Your task to perform on an android device: Clear the cart on amazon. Search for logitech g pro on amazon, select the first entry, and add it to the cart. Image 0: 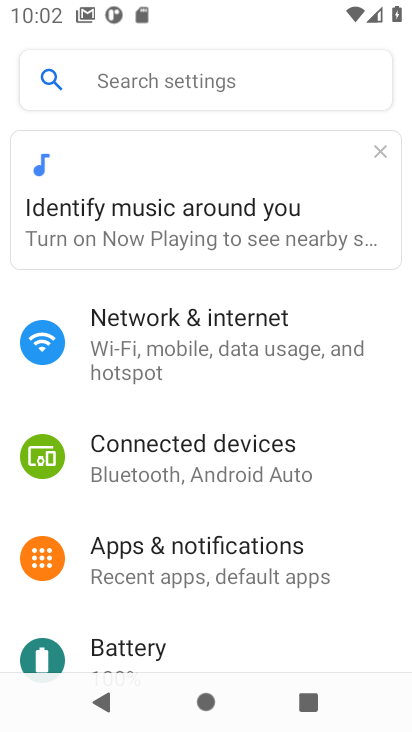
Step 0: press home button
Your task to perform on an android device: Clear the cart on amazon. Search for logitech g pro on amazon, select the first entry, and add it to the cart. Image 1: 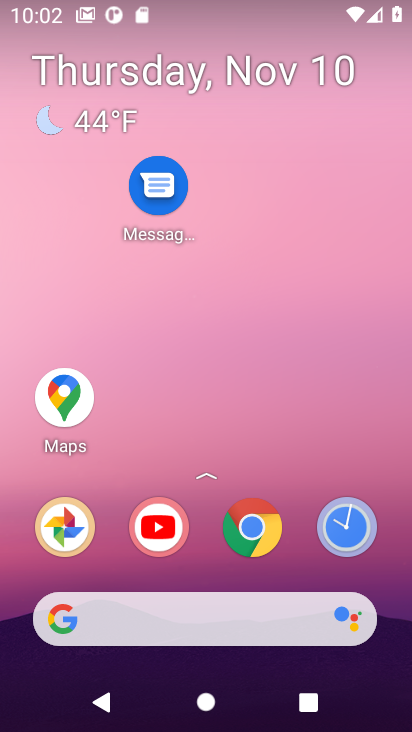
Step 1: drag from (203, 542) to (185, 0)
Your task to perform on an android device: Clear the cart on amazon. Search for logitech g pro on amazon, select the first entry, and add it to the cart. Image 2: 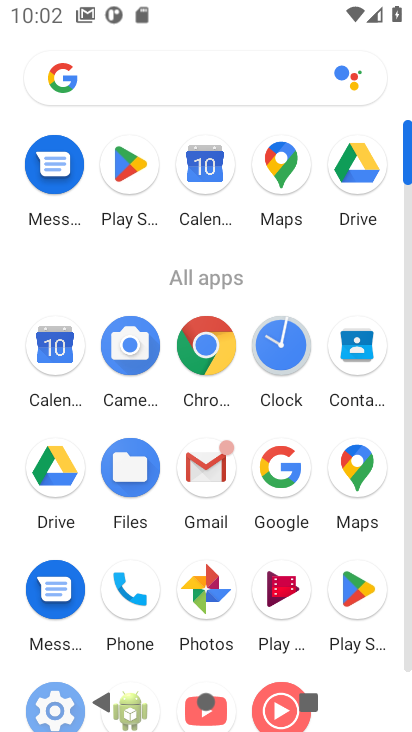
Step 2: click (204, 341)
Your task to perform on an android device: Clear the cart on amazon. Search for logitech g pro on amazon, select the first entry, and add it to the cart. Image 3: 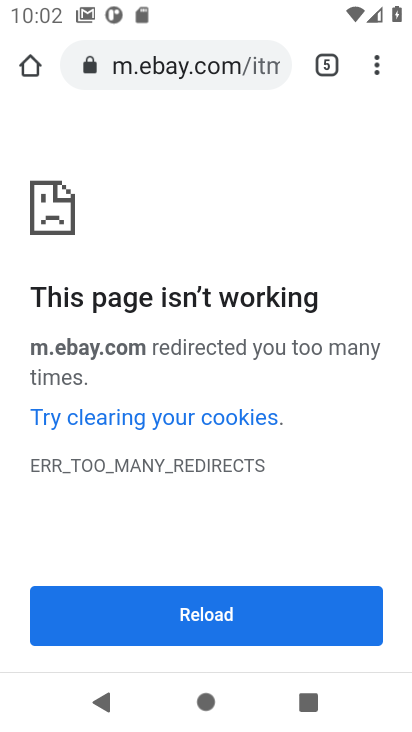
Step 3: click (155, 76)
Your task to perform on an android device: Clear the cart on amazon. Search for logitech g pro on amazon, select the first entry, and add it to the cart. Image 4: 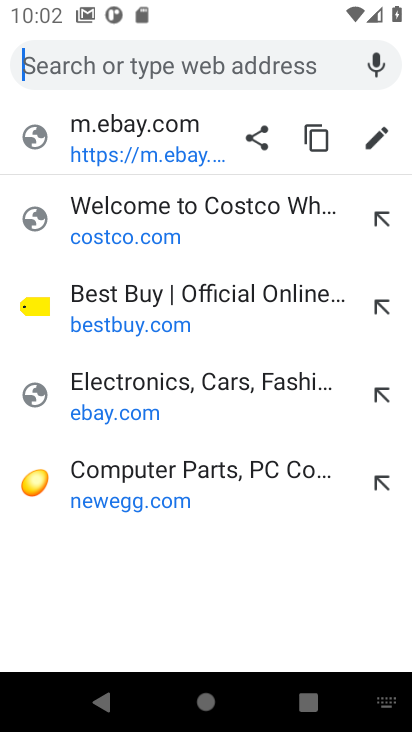
Step 4: type "amazon"
Your task to perform on an android device: Clear the cart on amazon. Search for logitech g pro on amazon, select the first entry, and add it to the cart. Image 5: 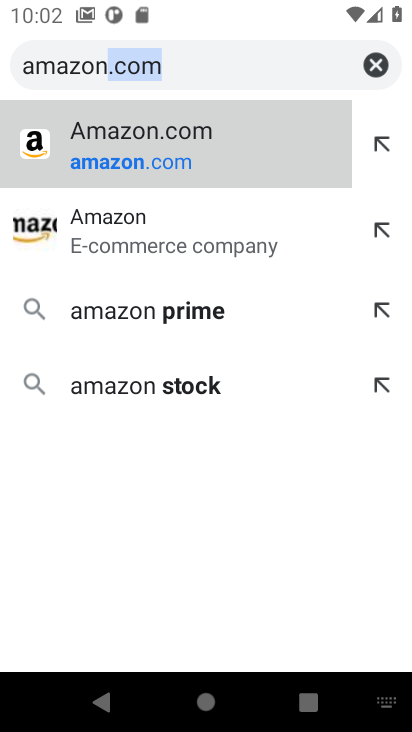
Step 5: press enter
Your task to perform on an android device: Clear the cart on amazon. Search for logitech g pro on amazon, select the first entry, and add it to the cart. Image 6: 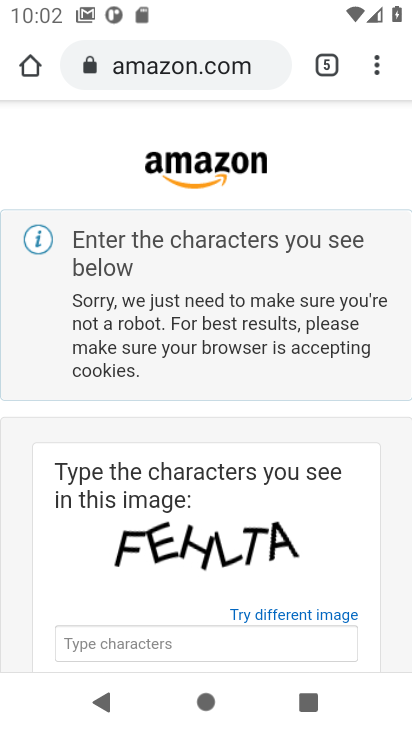
Step 6: drag from (177, 435) to (169, 148)
Your task to perform on an android device: Clear the cart on amazon. Search for logitech g pro on amazon, select the first entry, and add it to the cart. Image 7: 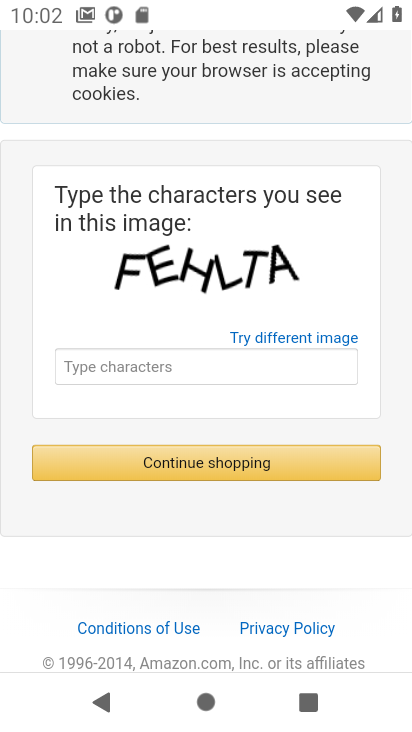
Step 7: click (86, 369)
Your task to perform on an android device: Clear the cart on amazon. Search for logitech g pro on amazon, select the first entry, and add it to the cart. Image 8: 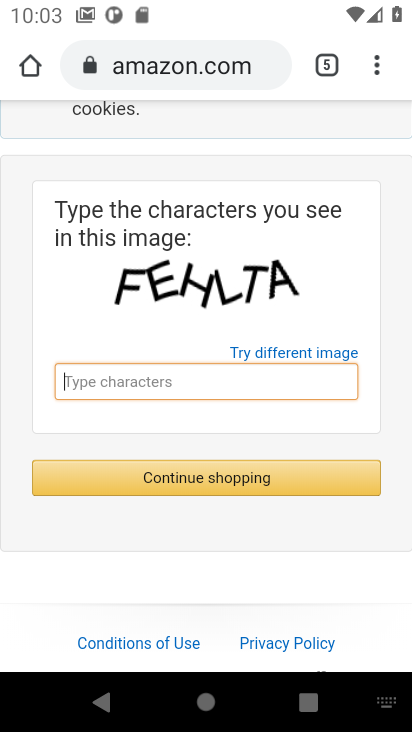
Step 8: type "FEHLTA"
Your task to perform on an android device: Clear the cart on amazon. Search for logitech g pro on amazon, select the first entry, and add it to the cart. Image 9: 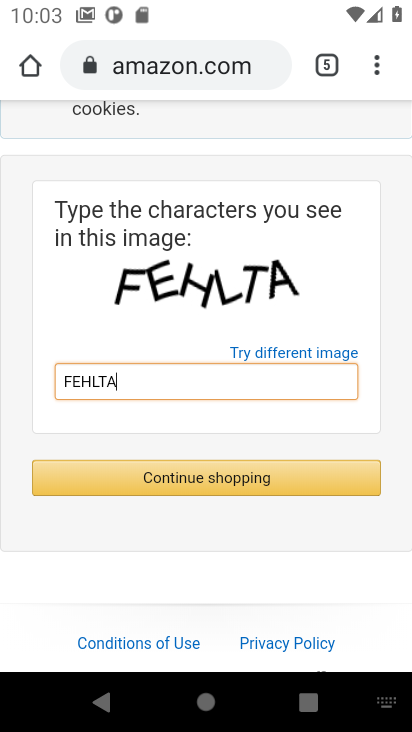
Step 9: press enter
Your task to perform on an android device: Clear the cart on amazon. Search for logitech g pro on amazon, select the first entry, and add it to the cart. Image 10: 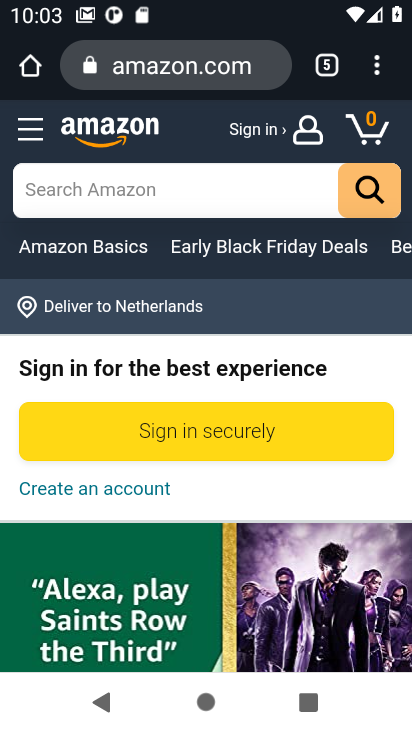
Step 10: click (75, 195)
Your task to perform on an android device: Clear the cart on amazon. Search for logitech g pro on amazon, select the first entry, and add it to the cart. Image 11: 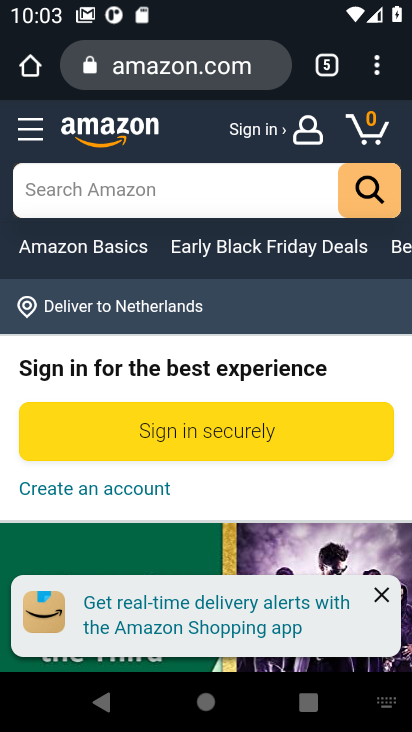
Step 11: type "logitech g pro"
Your task to perform on an android device: Clear the cart on amazon. Search for logitech g pro on amazon, select the first entry, and add it to the cart. Image 12: 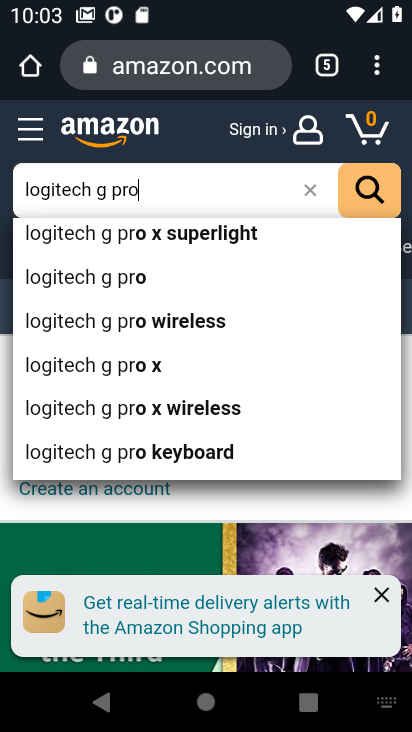
Step 12: press enter
Your task to perform on an android device: Clear the cart on amazon. Search for logitech g pro on amazon, select the first entry, and add it to the cart. Image 13: 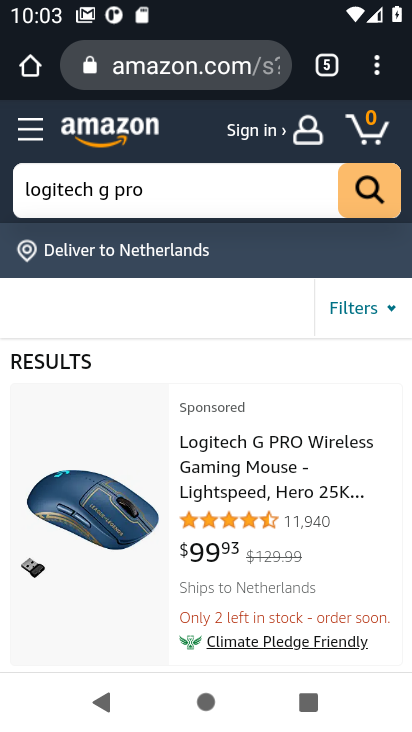
Step 13: click (257, 463)
Your task to perform on an android device: Clear the cart on amazon. Search for logitech g pro on amazon, select the first entry, and add it to the cart. Image 14: 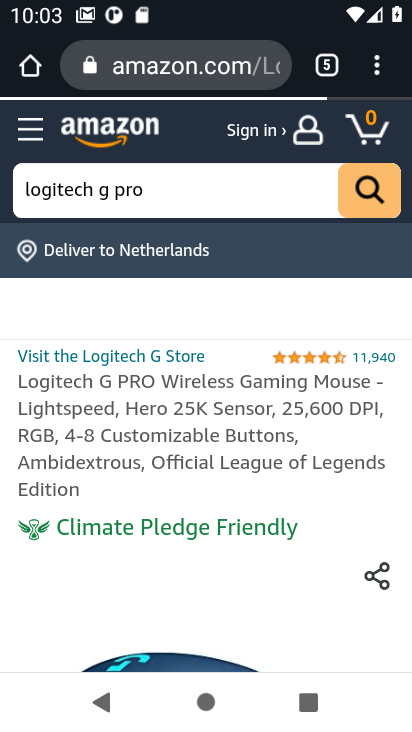
Step 14: drag from (233, 622) to (246, 357)
Your task to perform on an android device: Clear the cart on amazon. Search for logitech g pro on amazon, select the first entry, and add it to the cart. Image 15: 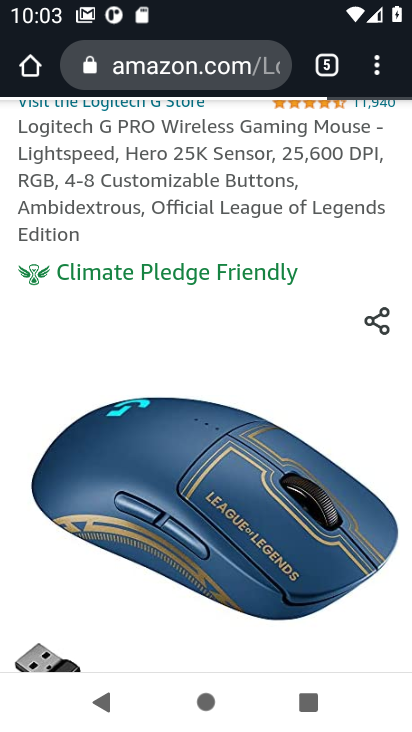
Step 15: drag from (228, 609) to (254, 213)
Your task to perform on an android device: Clear the cart on amazon. Search for logitech g pro on amazon, select the first entry, and add it to the cart. Image 16: 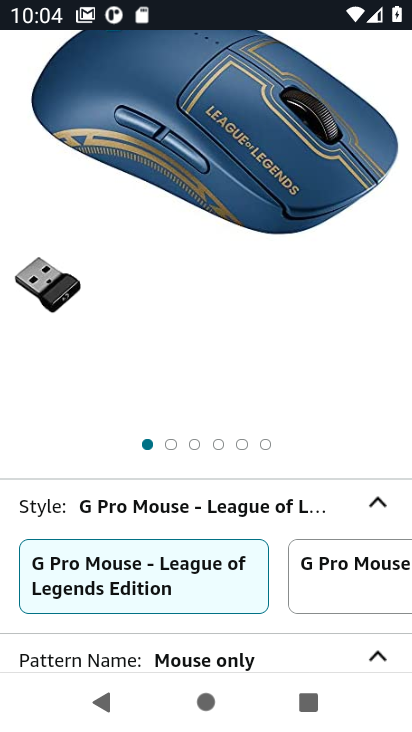
Step 16: drag from (224, 526) to (236, 173)
Your task to perform on an android device: Clear the cart on amazon. Search for logitech g pro on amazon, select the first entry, and add it to the cart. Image 17: 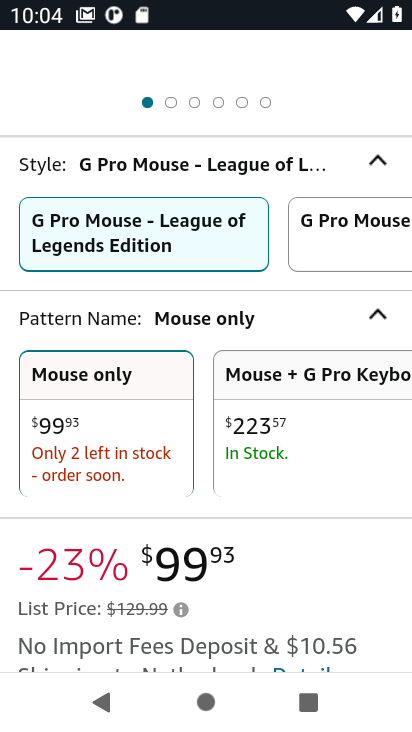
Step 17: drag from (236, 365) to (240, 113)
Your task to perform on an android device: Clear the cart on amazon. Search for logitech g pro on amazon, select the first entry, and add it to the cart. Image 18: 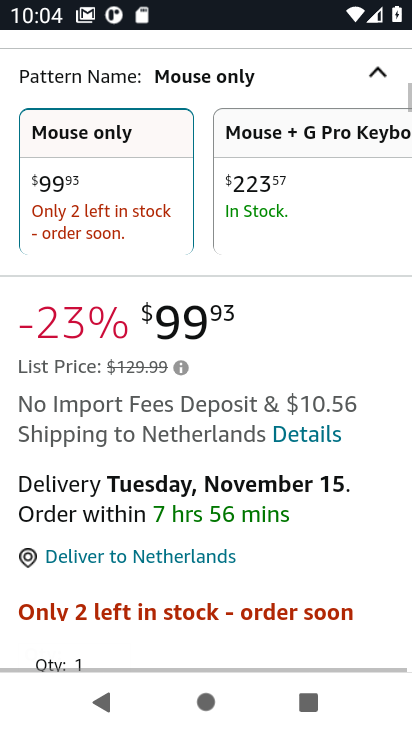
Step 18: drag from (222, 545) to (298, 222)
Your task to perform on an android device: Clear the cart on amazon. Search for logitech g pro on amazon, select the first entry, and add it to the cart. Image 19: 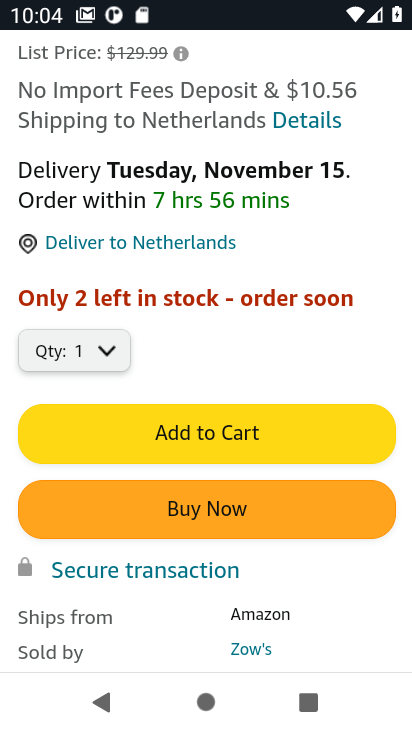
Step 19: click (257, 431)
Your task to perform on an android device: Clear the cart on amazon. Search for logitech g pro on amazon, select the first entry, and add it to the cart. Image 20: 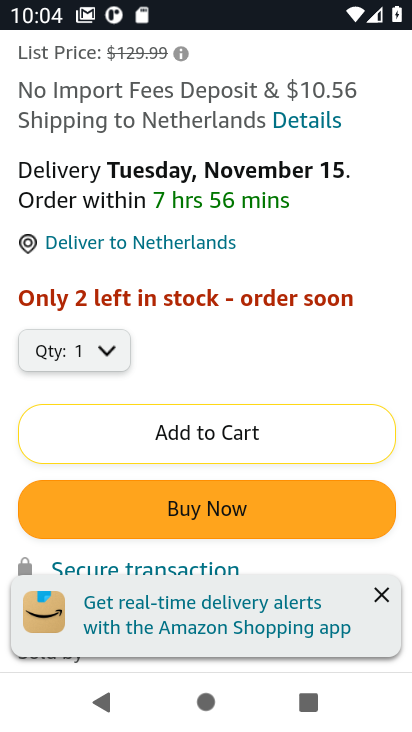
Step 20: drag from (164, 130) to (266, 529)
Your task to perform on an android device: Clear the cart on amazon. Search for logitech g pro on amazon, select the first entry, and add it to the cart. Image 21: 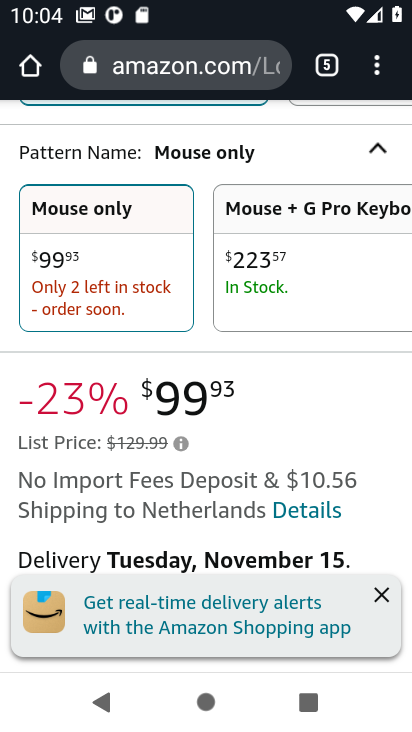
Step 21: drag from (187, 233) to (235, 512)
Your task to perform on an android device: Clear the cart on amazon. Search for logitech g pro on amazon, select the first entry, and add it to the cart. Image 22: 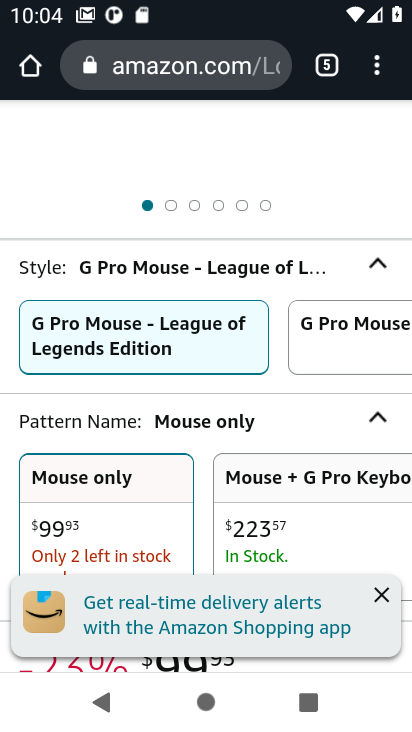
Step 22: drag from (236, 283) to (311, 568)
Your task to perform on an android device: Clear the cart on amazon. Search for logitech g pro on amazon, select the first entry, and add it to the cart. Image 23: 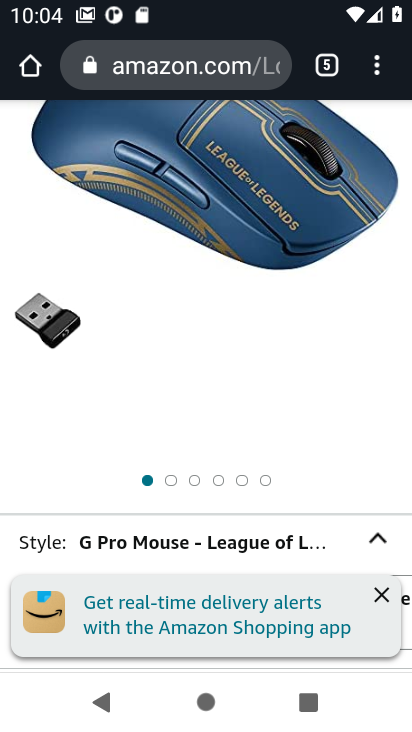
Step 23: drag from (244, 158) to (299, 492)
Your task to perform on an android device: Clear the cart on amazon. Search for logitech g pro on amazon, select the first entry, and add it to the cart. Image 24: 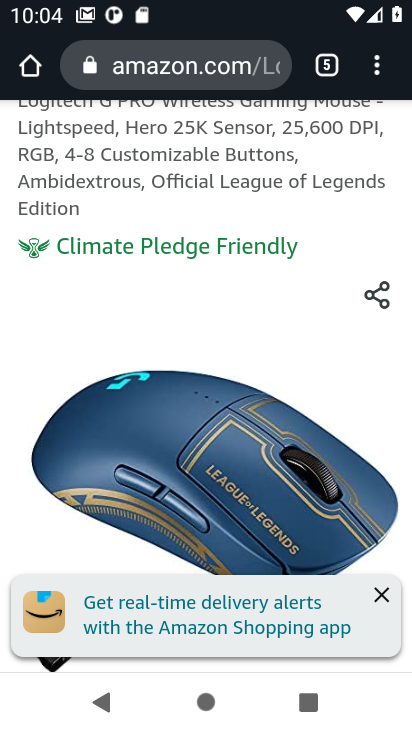
Step 24: drag from (260, 204) to (321, 531)
Your task to perform on an android device: Clear the cart on amazon. Search for logitech g pro on amazon, select the first entry, and add it to the cart. Image 25: 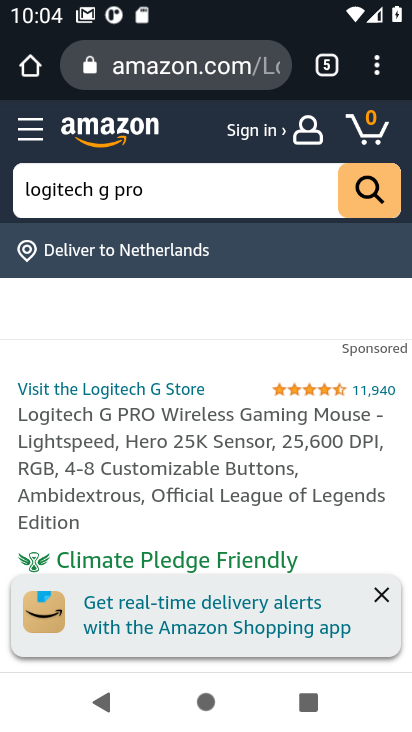
Step 25: drag from (293, 181) to (360, 458)
Your task to perform on an android device: Clear the cart on amazon. Search for logitech g pro on amazon, select the first entry, and add it to the cart. Image 26: 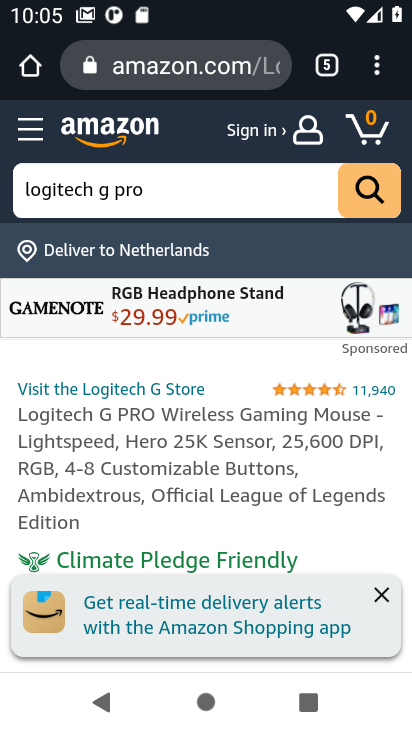
Step 26: drag from (220, 636) to (203, 323)
Your task to perform on an android device: Clear the cart on amazon. Search for logitech g pro on amazon, select the first entry, and add it to the cart. Image 27: 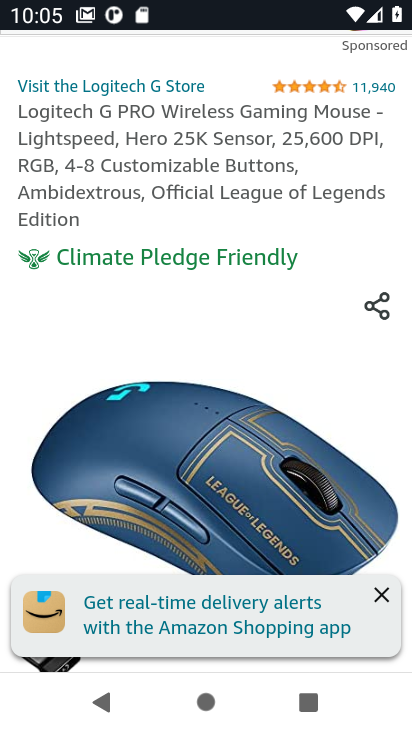
Step 27: drag from (227, 573) to (227, 156)
Your task to perform on an android device: Clear the cart on amazon. Search for logitech g pro on amazon, select the first entry, and add it to the cart. Image 28: 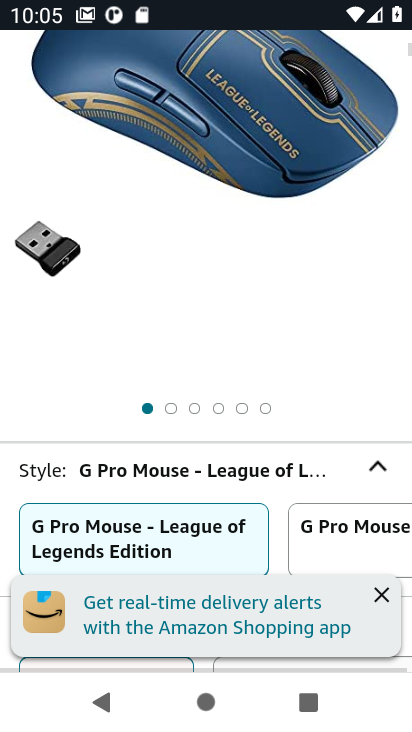
Step 28: drag from (236, 520) to (204, 161)
Your task to perform on an android device: Clear the cart on amazon. Search for logitech g pro on amazon, select the first entry, and add it to the cart. Image 29: 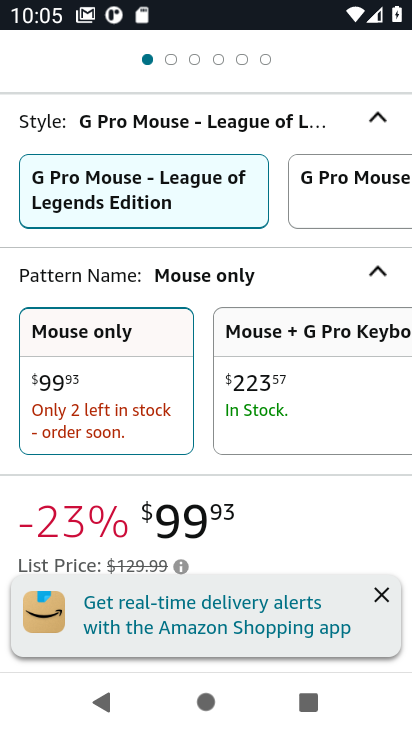
Step 29: drag from (205, 458) to (209, 100)
Your task to perform on an android device: Clear the cart on amazon. Search for logitech g pro on amazon, select the first entry, and add it to the cart. Image 30: 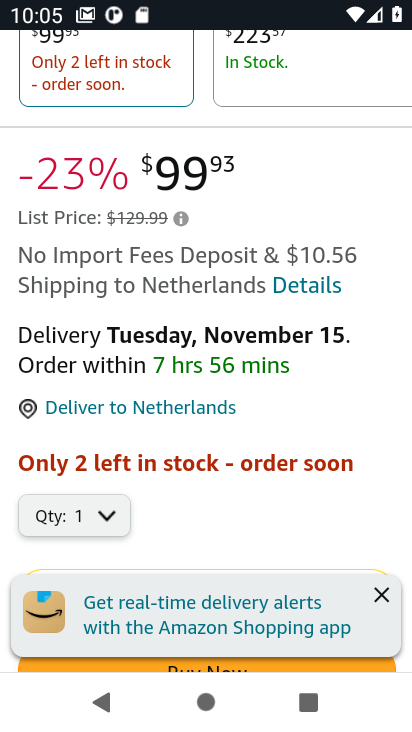
Step 30: drag from (206, 468) to (193, 120)
Your task to perform on an android device: Clear the cart on amazon. Search for logitech g pro on amazon, select the first entry, and add it to the cart. Image 31: 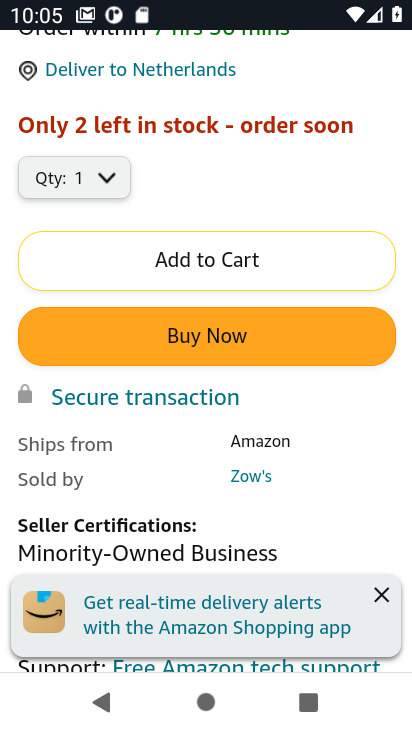
Step 31: drag from (240, 474) to (294, 131)
Your task to perform on an android device: Clear the cart on amazon. Search for logitech g pro on amazon, select the first entry, and add it to the cart. Image 32: 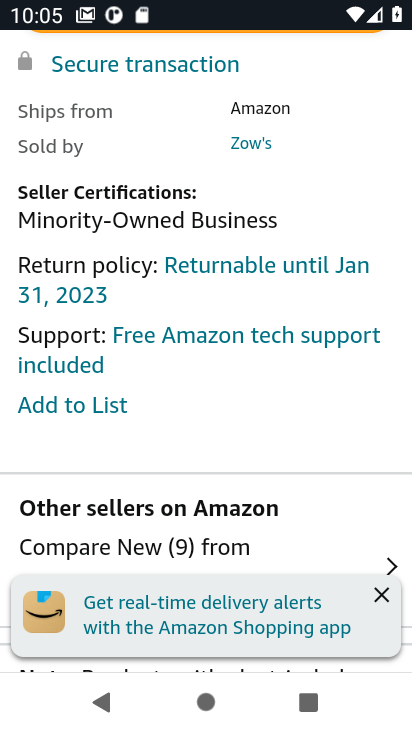
Step 32: drag from (248, 181) to (272, 466)
Your task to perform on an android device: Clear the cart on amazon. Search for logitech g pro on amazon, select the first entry, and add it to the cart. Image 33: 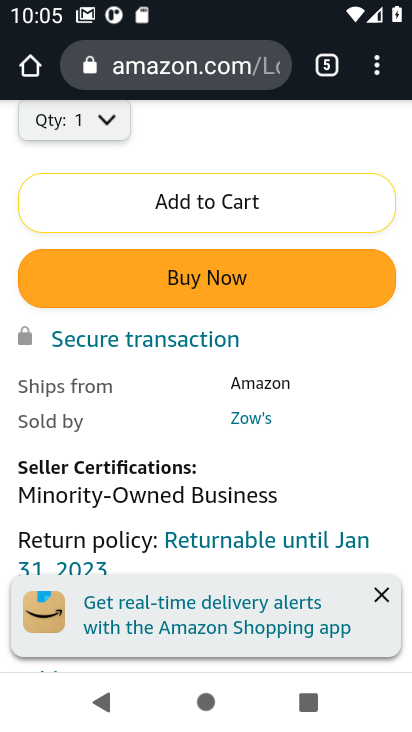
Step 33: click (232, 207)
Your task to perform on an android device: Clear the cart on amazon. Search for logitech g pro on amazon, select the first entry, and add it to the cart. Image 34: 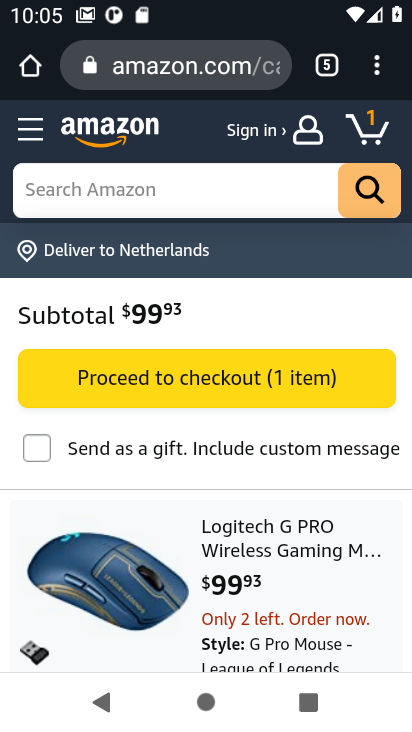
Step 34: task complete